Your task to perform on an android device: turn on the 12-hour format for clock Image 0: 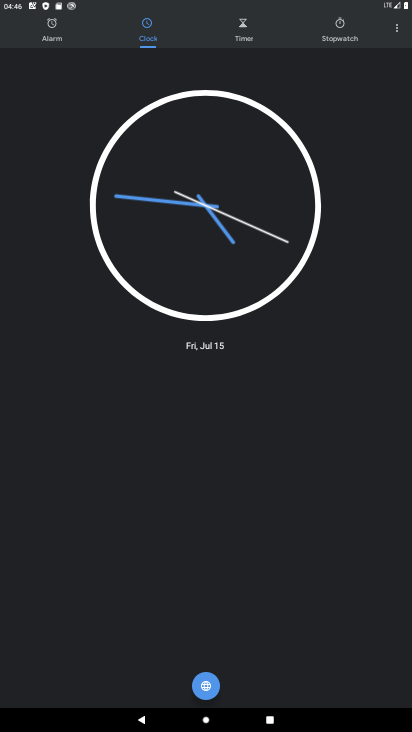
Step 0: click (401, 28)
Your task to perform on an android device: turn on the 12-hour format for clock Image 1: 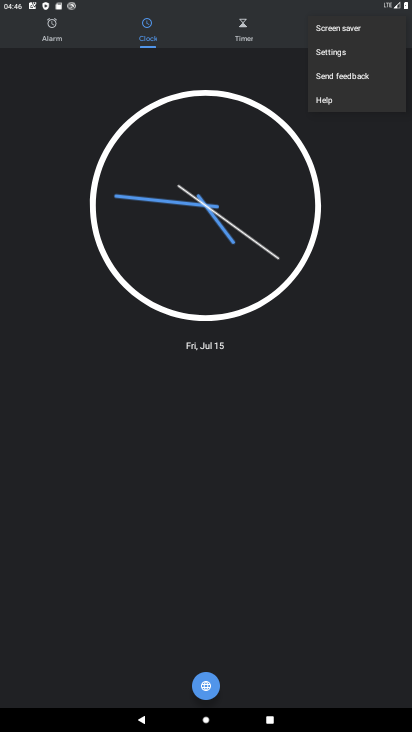
Step 1: click (337, 50)
Your task to perform on an android device: turn on the 12-hour format for clock Image 2: 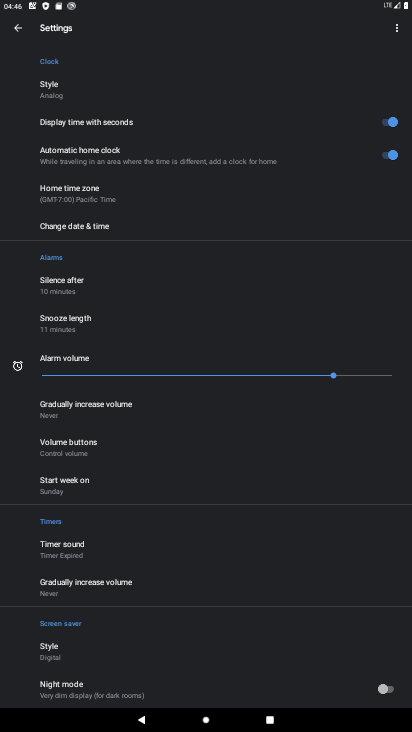
Step 2: click (102, 223)
Your task to perform on an android device: turn on the 12-hour format for clock Image 3: 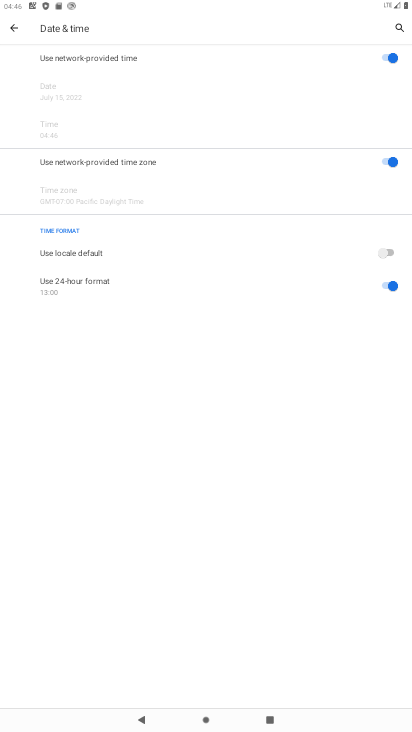
Step 3: click (386, 250)
Your task to perform on an android device: turn on the 12-hour format for clock Image 4: 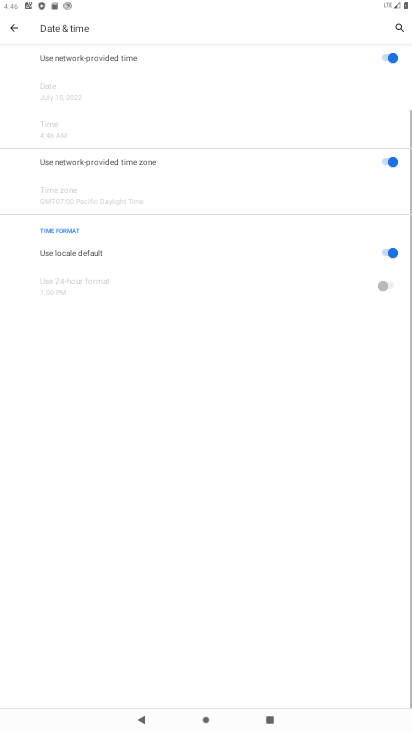
Step 4: task complete